Your task to perform on an android device: see tabs open on other devices in the chrome app Image 0: 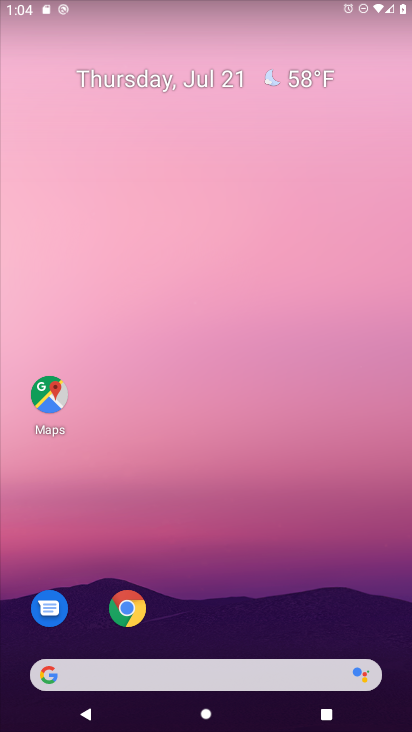
Step 0: drag from (203, 638) to (296, 33)
Your task to perform on an android device: see tabs open on other devices in the chrome app Image 1: 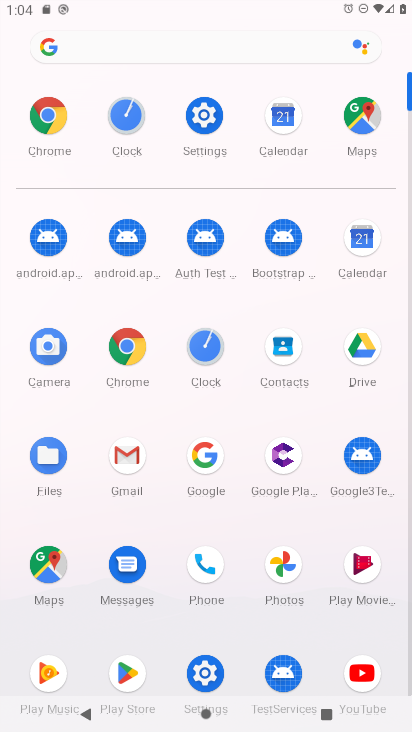
Step 1: click (37, 97)
Your task to perform on an android device: see tabs open on other devices in the chrome app Image 2: 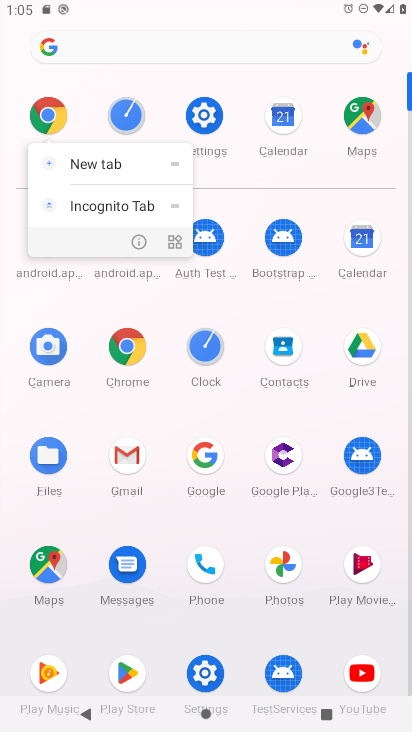
Step 2: click (21, 124)
Your task to perform on an android device: see tabs open on other devices in the chrome app Image 3: 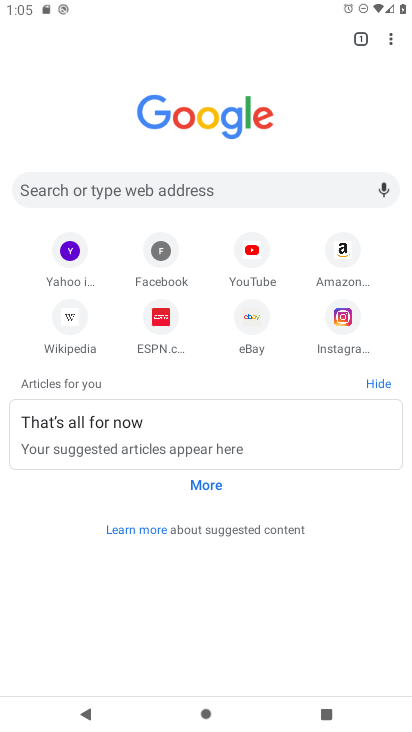
Step 3: task complete